Your task to perform on an android device: Go to internet settings Image 0: 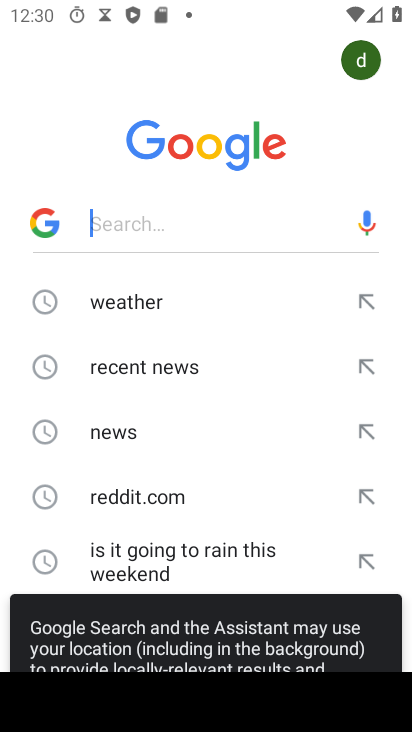
Step 0: press back button
Your task to perform on an android device: Go to internet settings Image 1: 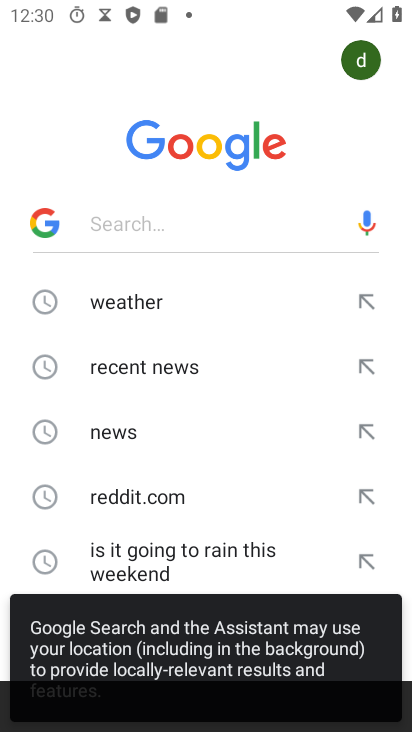
Step 1: press back button
Your task to perform on an android device: Go to internet settings Image 2: 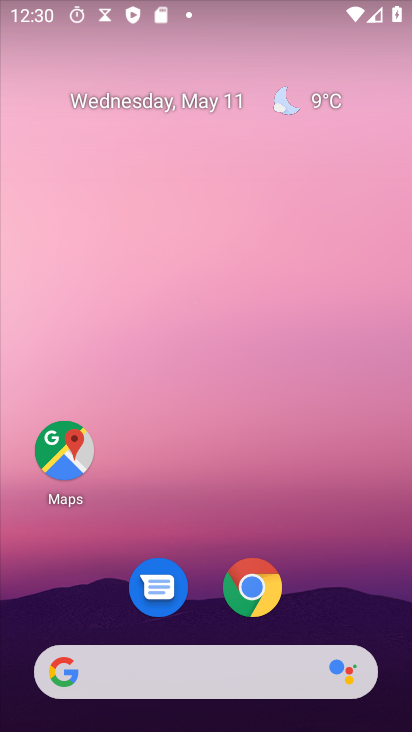
Step 2: drag from (370, 659) to (67, 157)
Your task to perform on an android device: Go to internet settings Image 3: 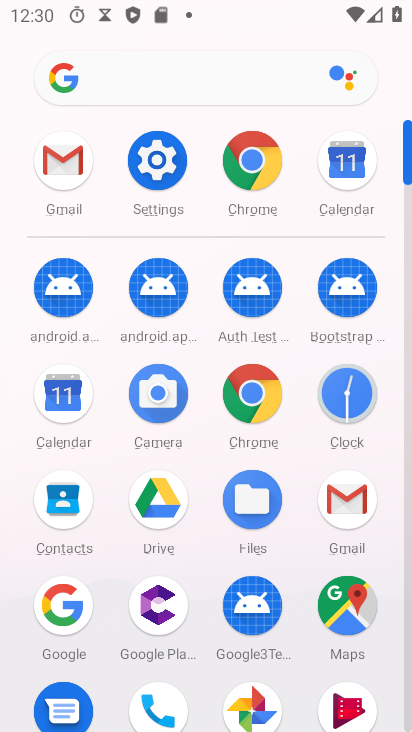
Step 3: click (149, 171)
Your task to perform on an android device: Go to internet settings Image 4: 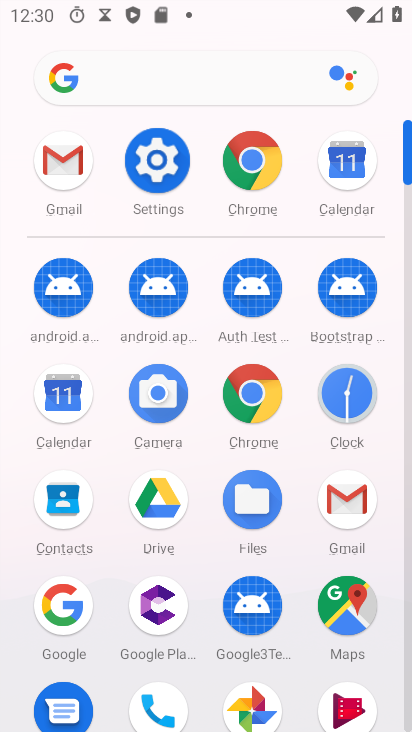
Step 4: click (150, 170)
Your task to perform on an android device: Go to internet settings Image 5: 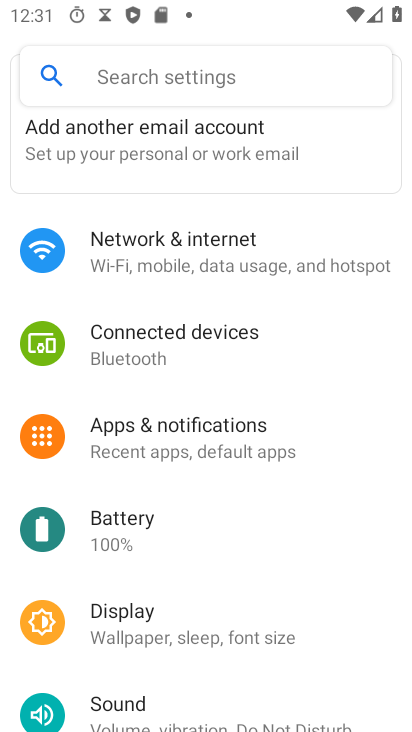
Step 5: click (165, 255)
Your task to perform on an android device: Go to internet settings Image 6: 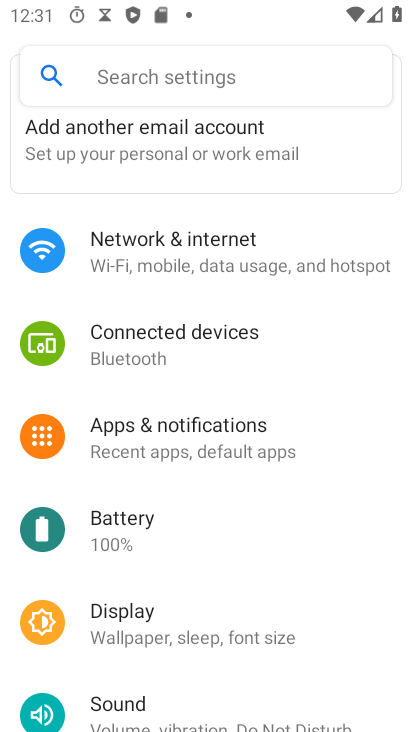
Step 6: click (167, 255)
Your task to perform on an android device: Go to internet settings Image 7: 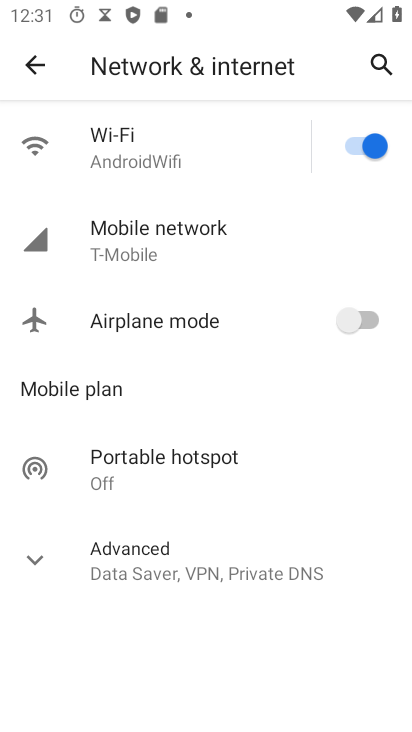
Step 7: task complete